Your task to perform on an android device: change notification settings in the gmail app Image 0: 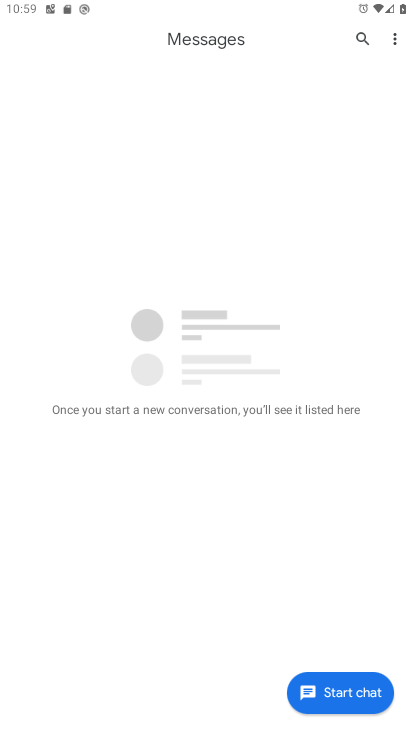
Step 0: press home button
Your task to perform on an android device: change notification settings in the gmail app Image 1: 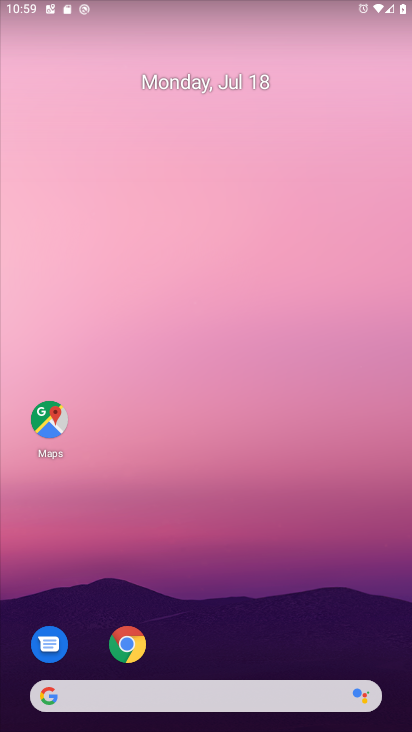
Step 1: drag from (237, 650) to (227, 1)
Your task to perform on an android device: change notification settings in the gmail app Image 2: 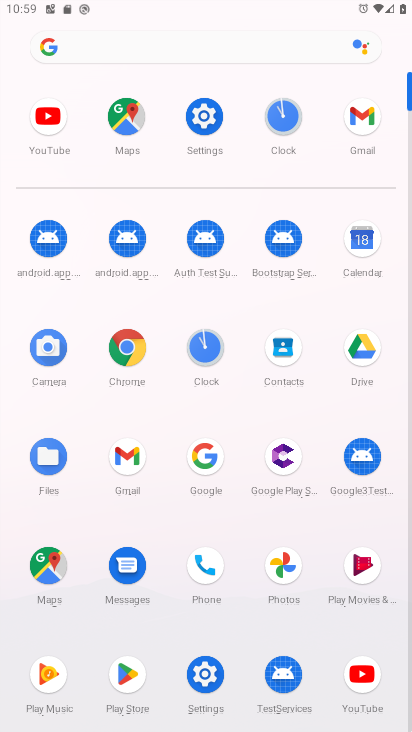
Step 2: click (351, 132)
Your task to perform on an android device: change notification settings in the gmail app Image 3: 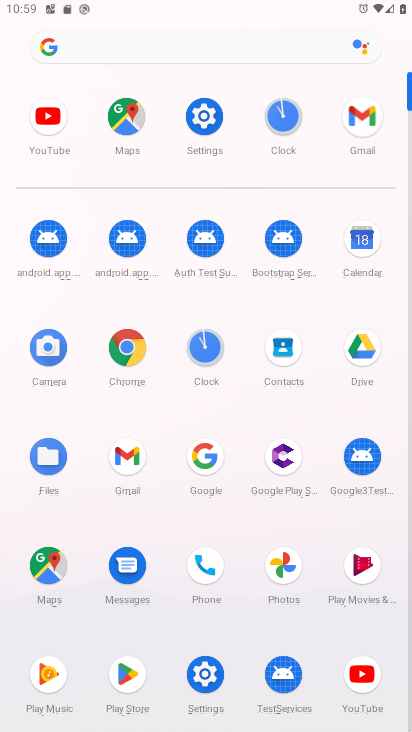
Step 3: task complete